Your task to perform on an android device: Open Reddit.com Image 0: 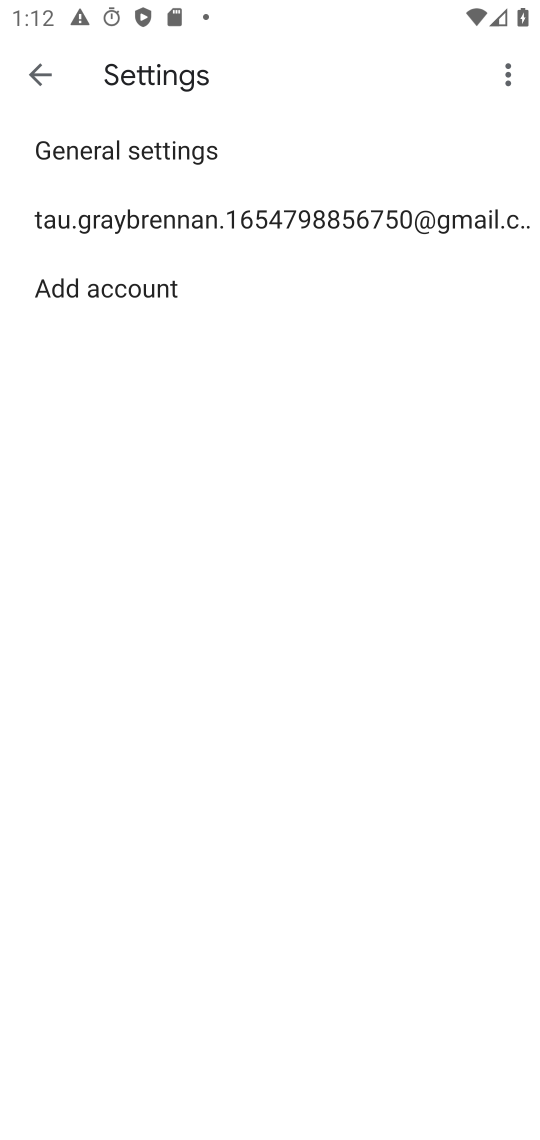
Step 0: press home button
Your task to perform on an android device: Open Reddit.com Image 1: 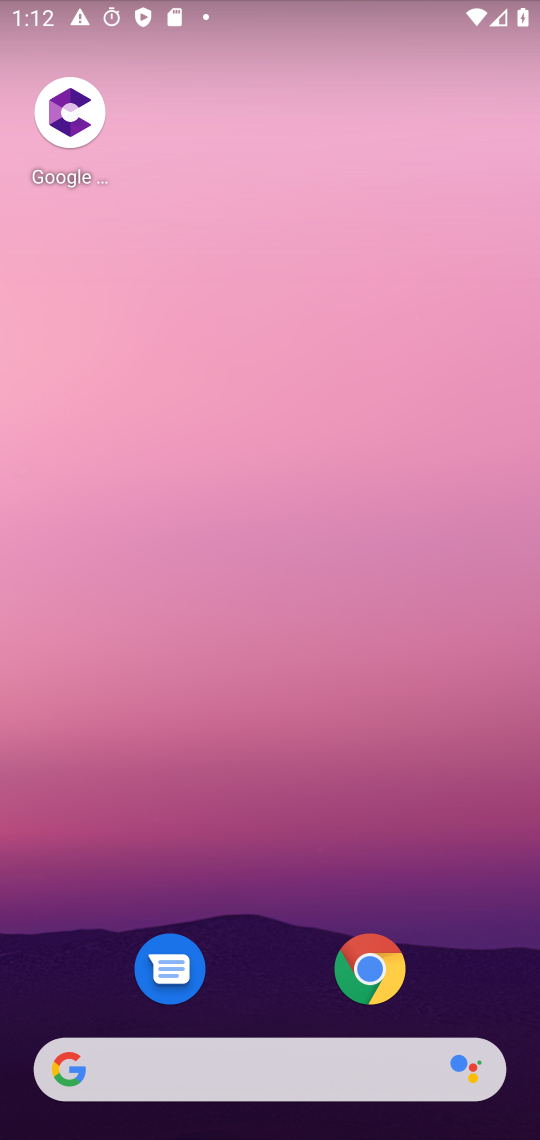
Step 1: click (372, 971)
Your task to perform on an android device: Open Reddit.com Image 2: 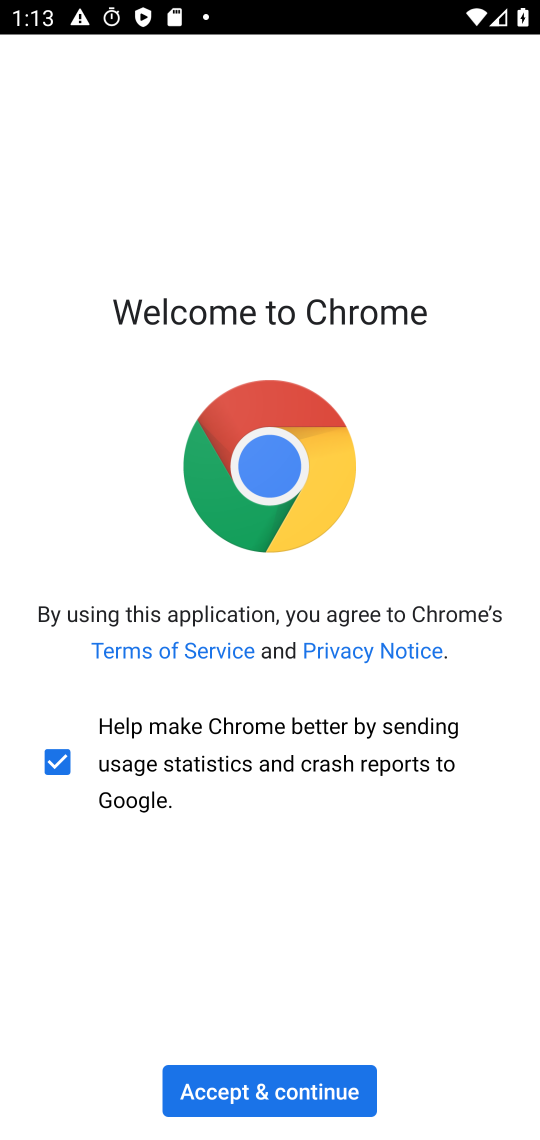
Step 2: click (291, 1090)
Your task to perform on an android device: Open Reddit.com Image 3: 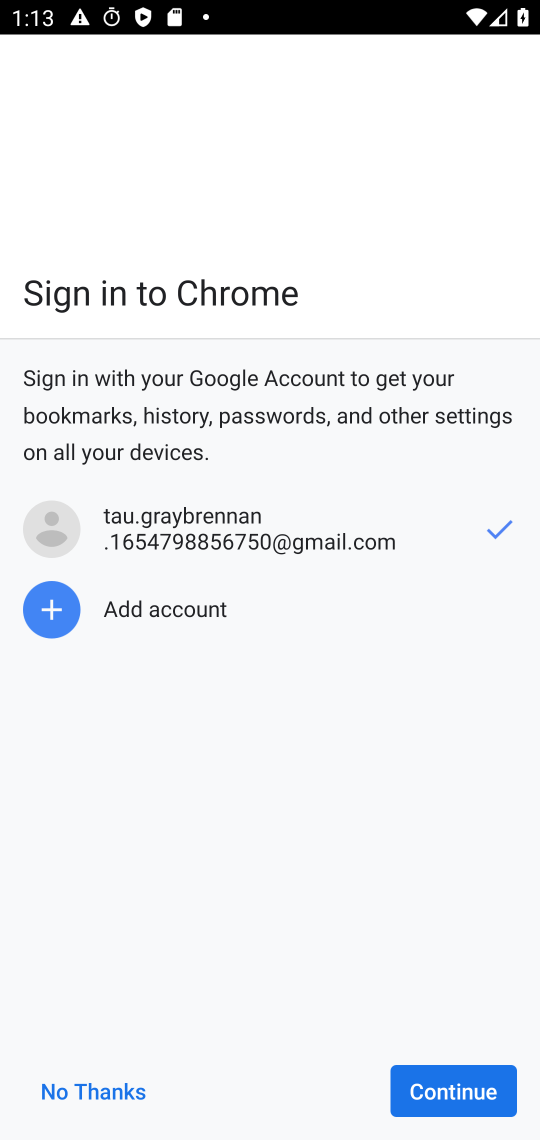
Step 3: click (481, 1093)
Your task to perform on an android device: Open Reddit.com Image 4: 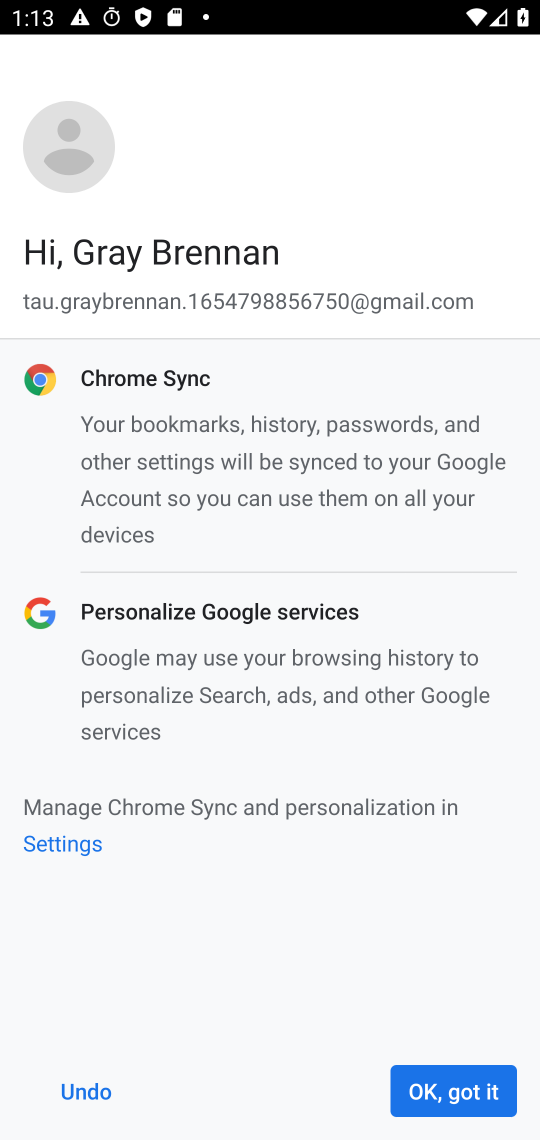
Step 4: click (427, 1090)
Your task to perform on an android device: Open Reddit.com Image 5: 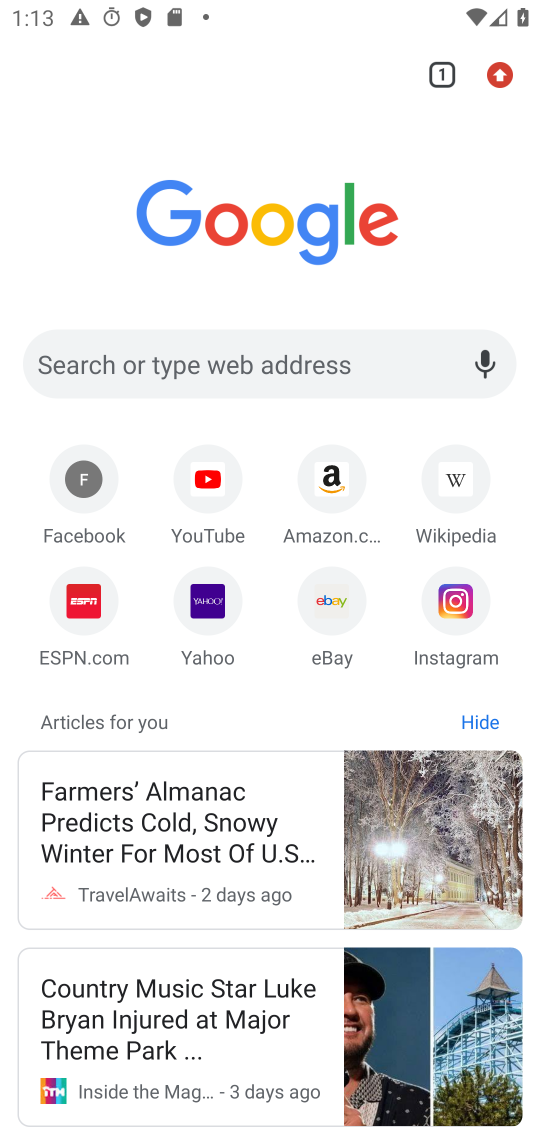
Step 5: click (224, 354)
Your task to perform on an android device: Open Reddit.com Image 6: 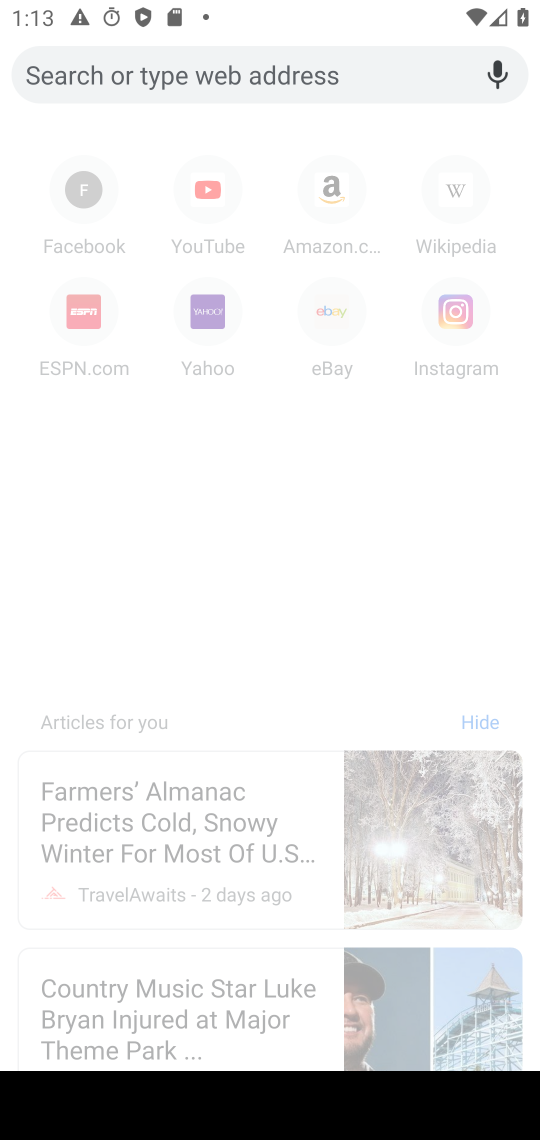
Step 6: drag from (503, 1123) to (379, 720)
Your task to perform on an android device: Open Reddit.com Image 7: 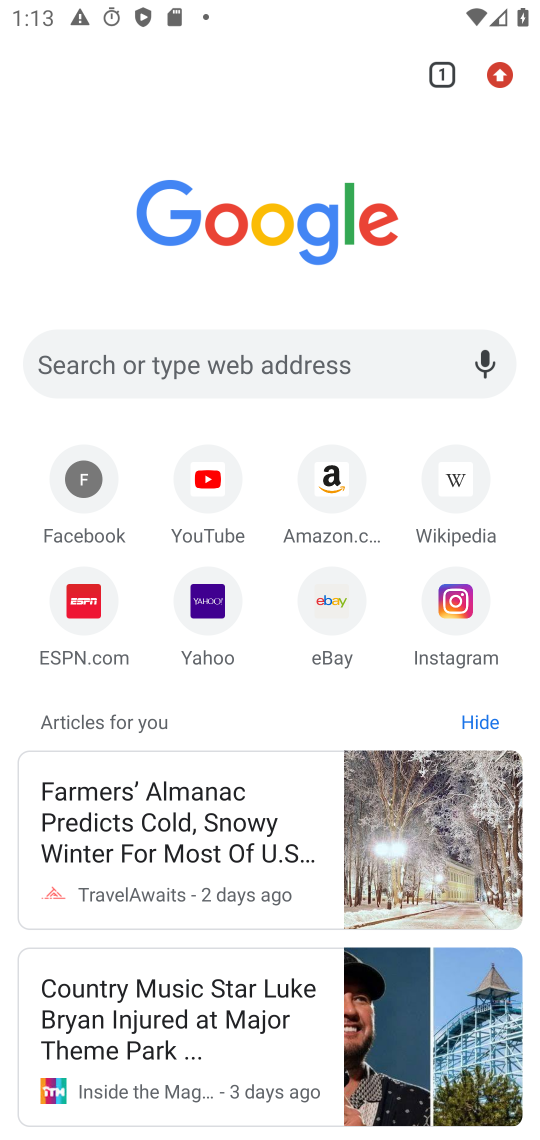
Step 7: click (222, 336)
Your task to perform on an android device: Open Reddit.com Image 8: 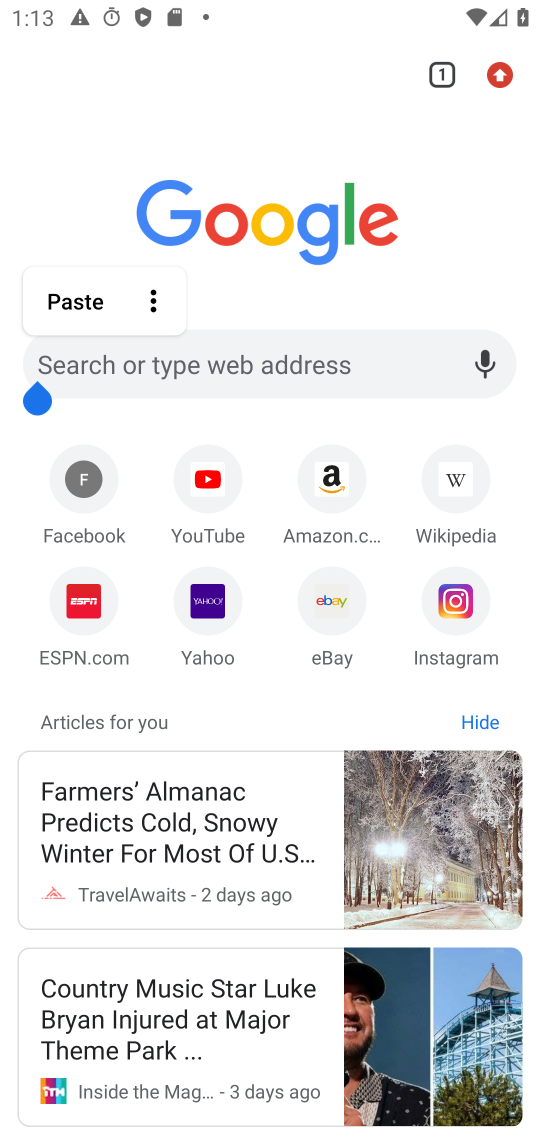
Step 8: click (226, 352)
Your task to perform on an android device: Open Reddit.com Image 9: 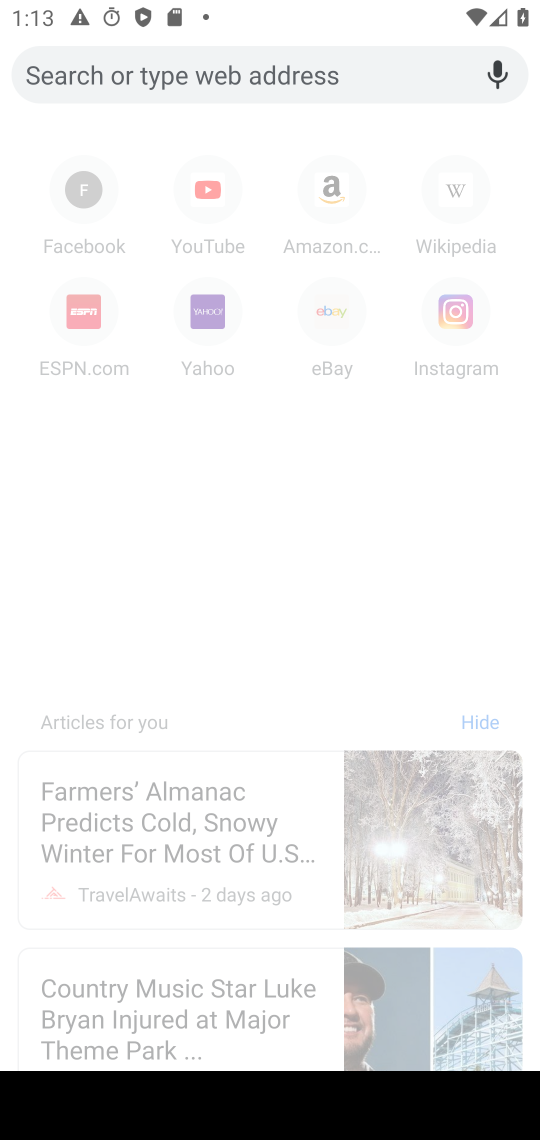
Step 9: click (200, 84)
Your task to perform on an android device: Open Reddit.com Image 10: 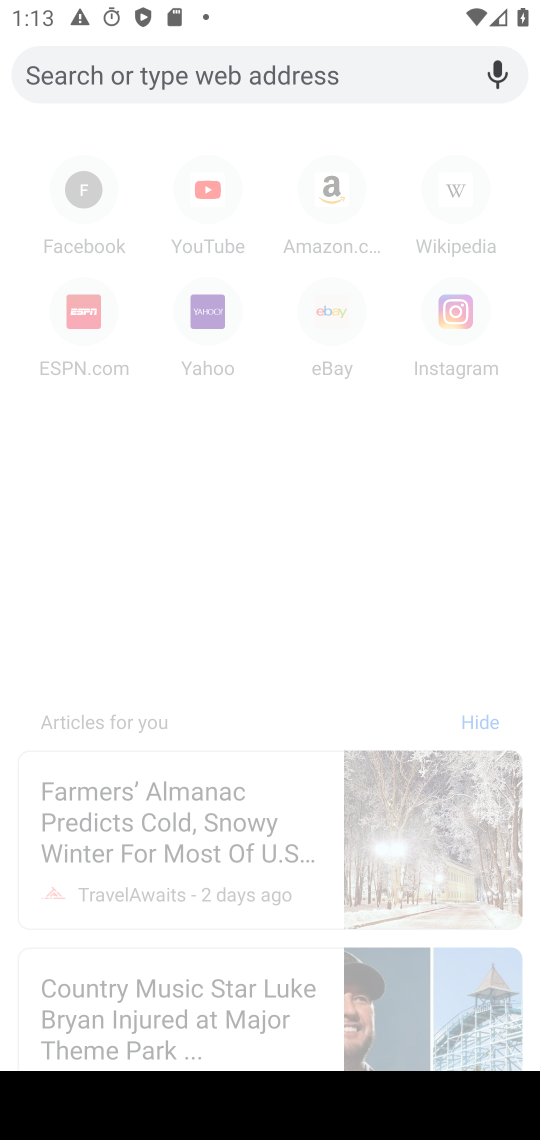
Step 10: click (502, 1119)
Your task to perform on an android device: Open Reddit.com Image 11: 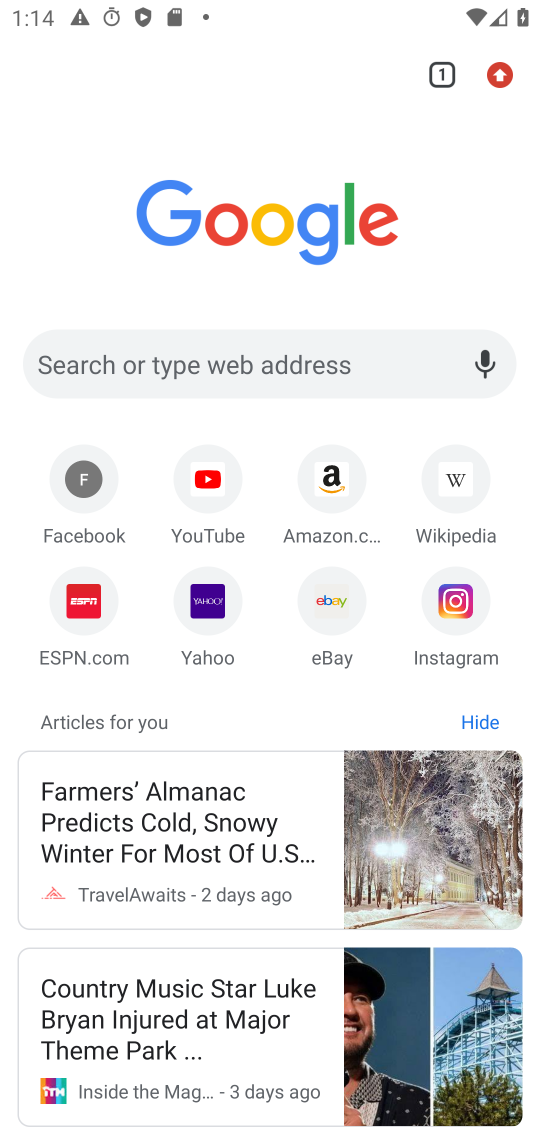
Step 11: click (225, 336)
Your task to perform on an android device: Open Reddit.com Image 12: 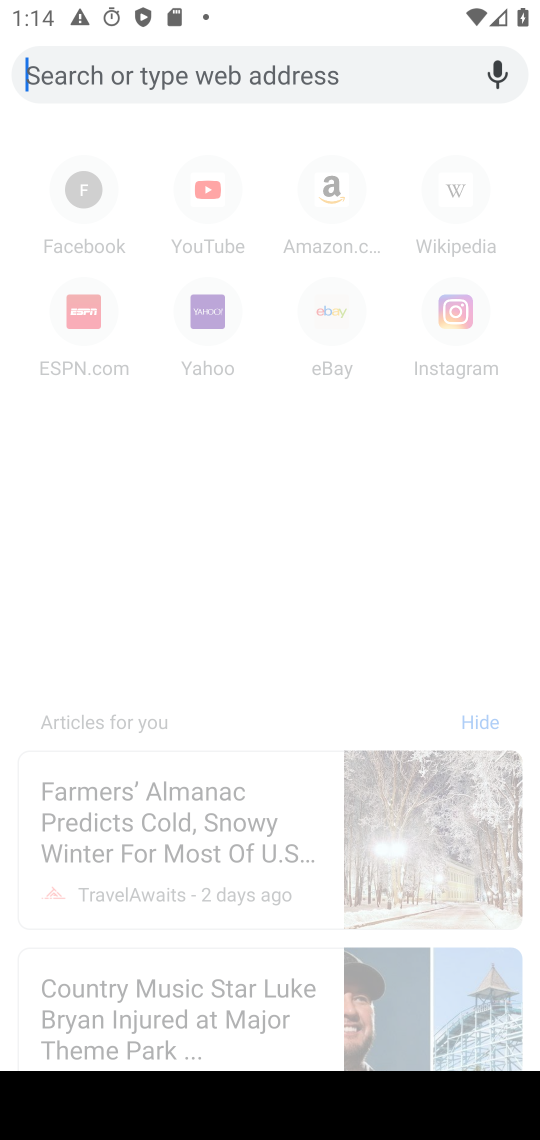
Step 12: drag from (481, 1128) to (464, 1036)
Your task to perform on an android device: Open Reddit.com Image 13: 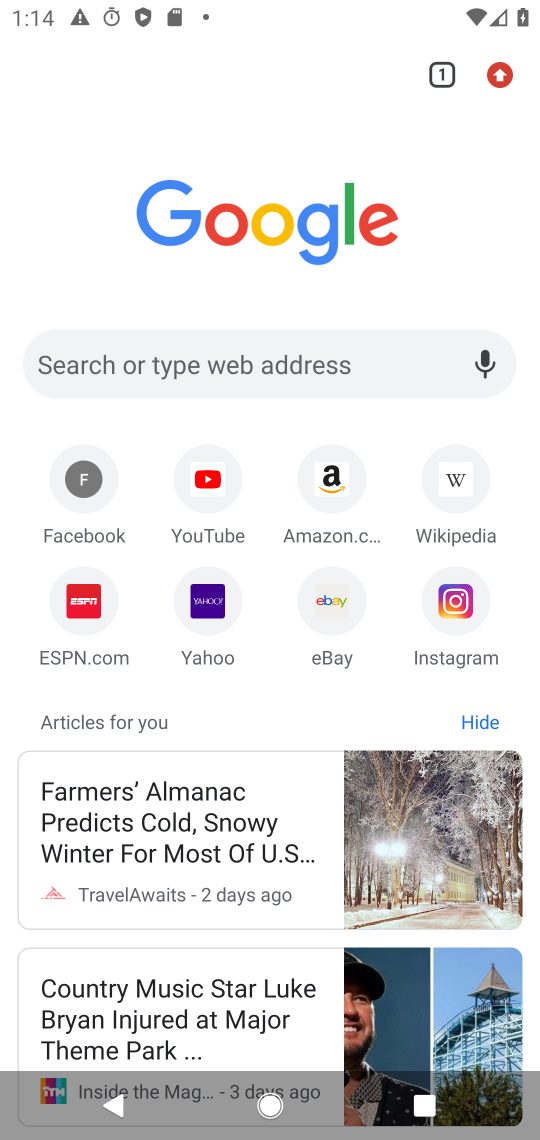
Step 13: click (487, 1127)
Your task to perform on an android device: Open Reddit.com Image 14: 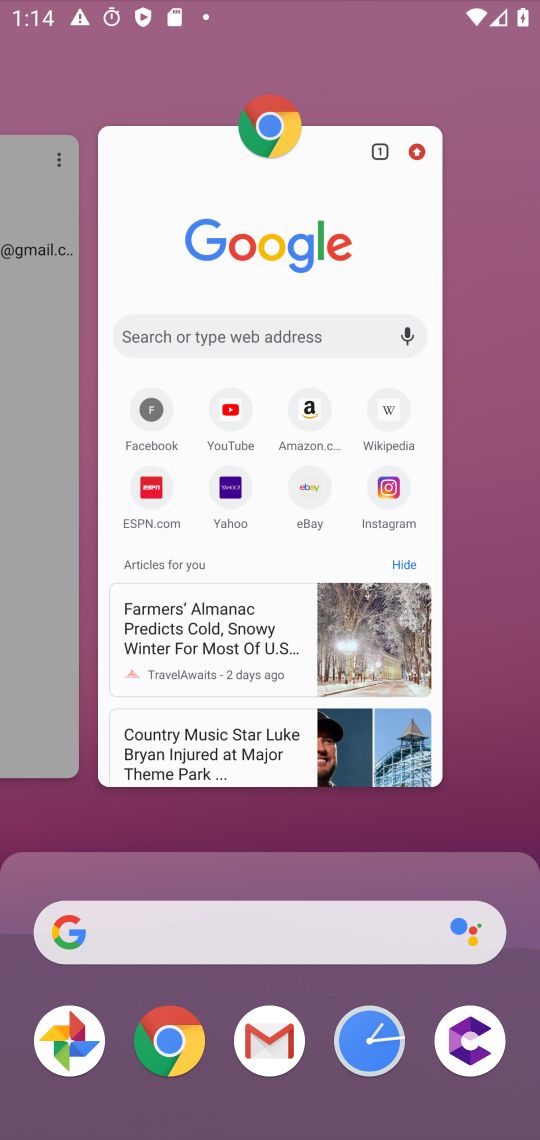
Step 14: click (299, 945)
Your task to perform on an android device: Open Reddit.com Image 15: 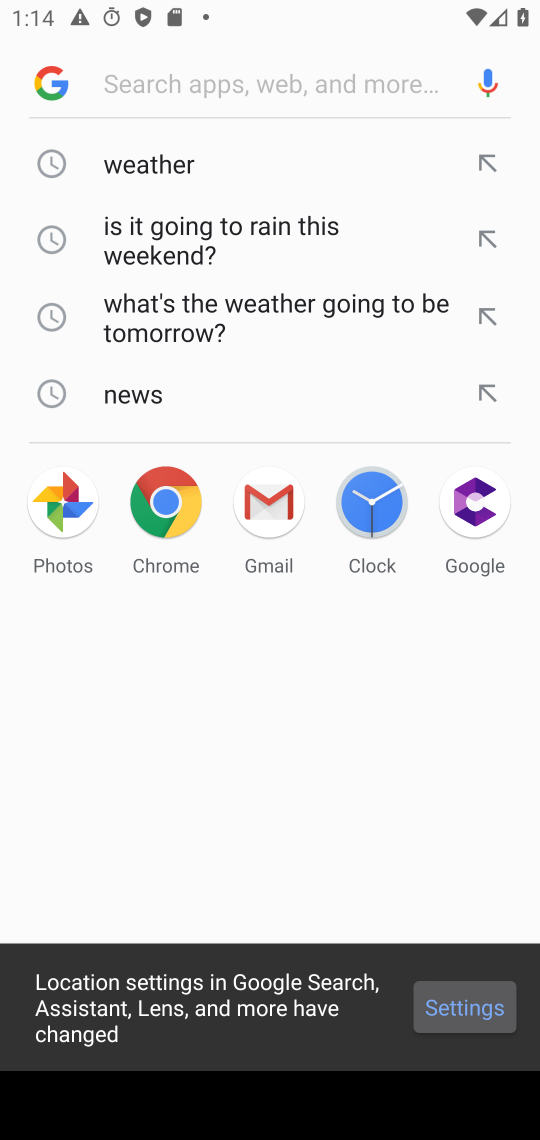
Step 15: drag from (486, 1103) to (487, 968)
Your task to perform on an android device: Open Reddit.com Image 16: 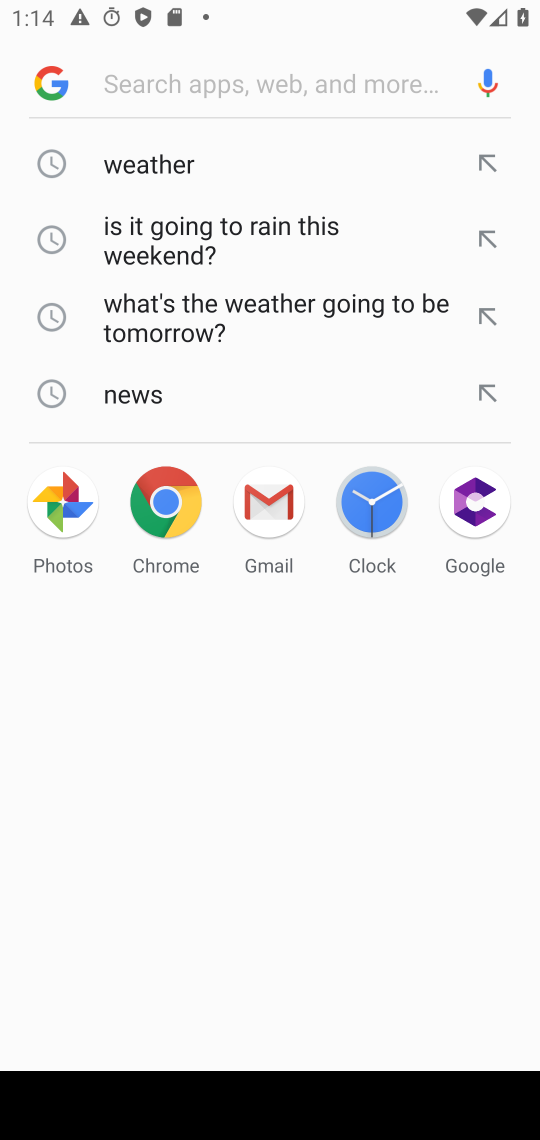
Step 16: drag from (504, 1120) to (471, 1046)
Your task to perform on an android device: Open Reddit.com Image 17: 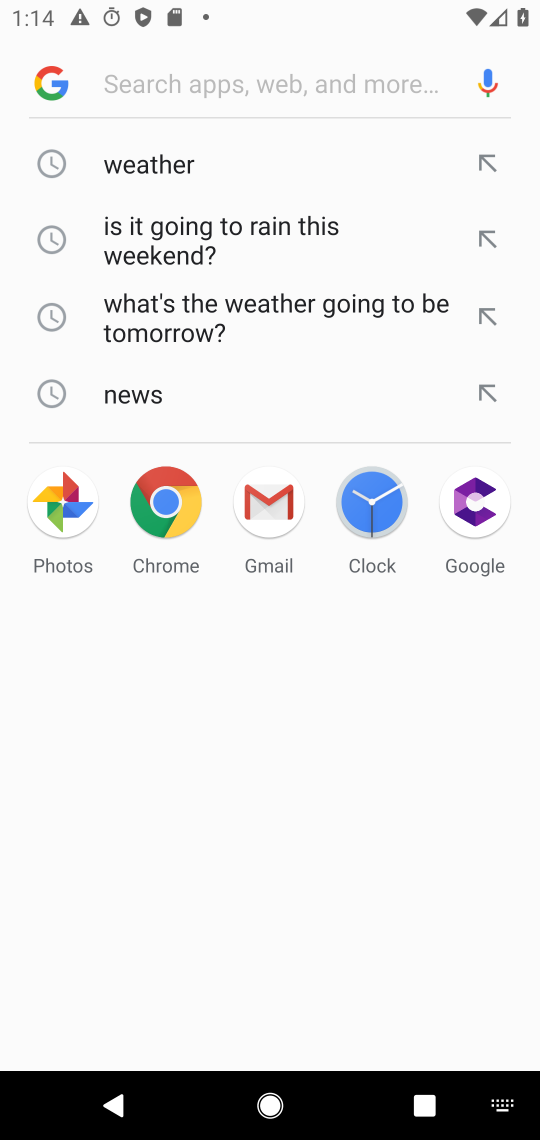
Step 17: click (494, 1117)
Your task to perform on an android device: Open Reddit.com Image 18: 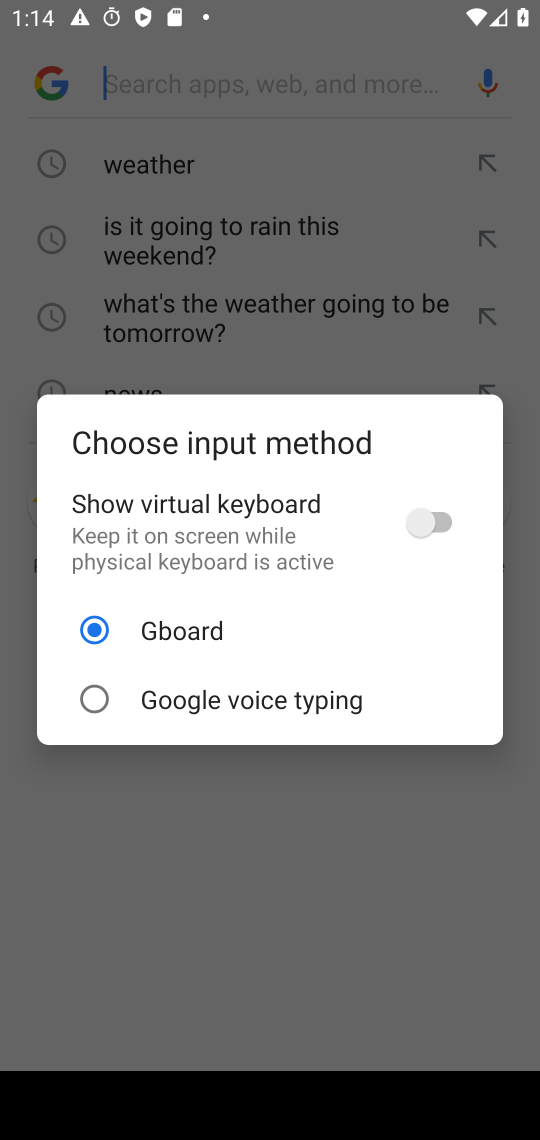
Step 18: click (433, 520)
Your task to perform on an android device: Open Reddit.com Image 19: 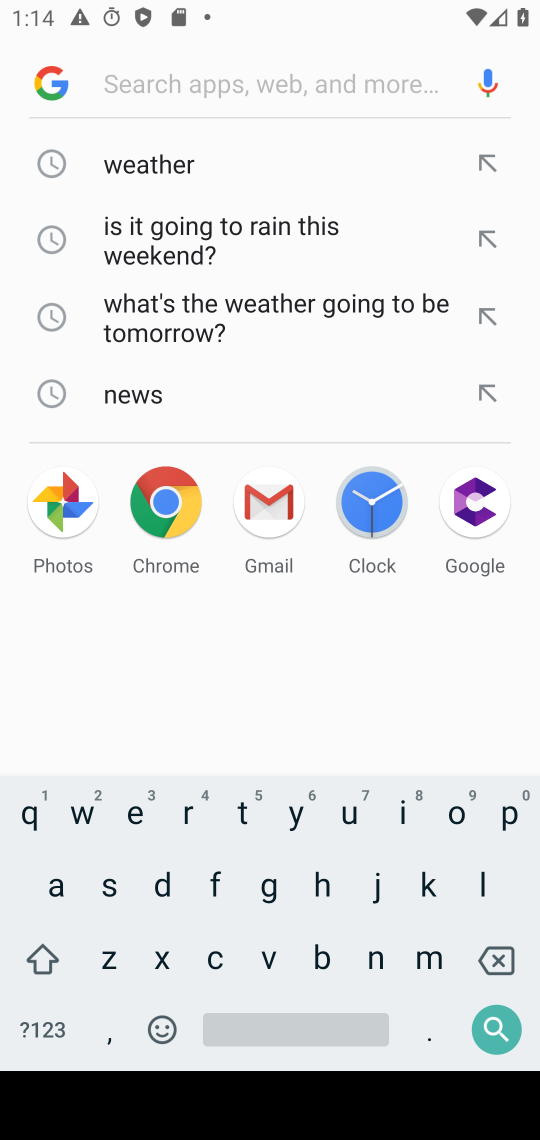
Step 19: click (190, 806)
Your task to perform on an android device: Open Reddit.com Image 20: 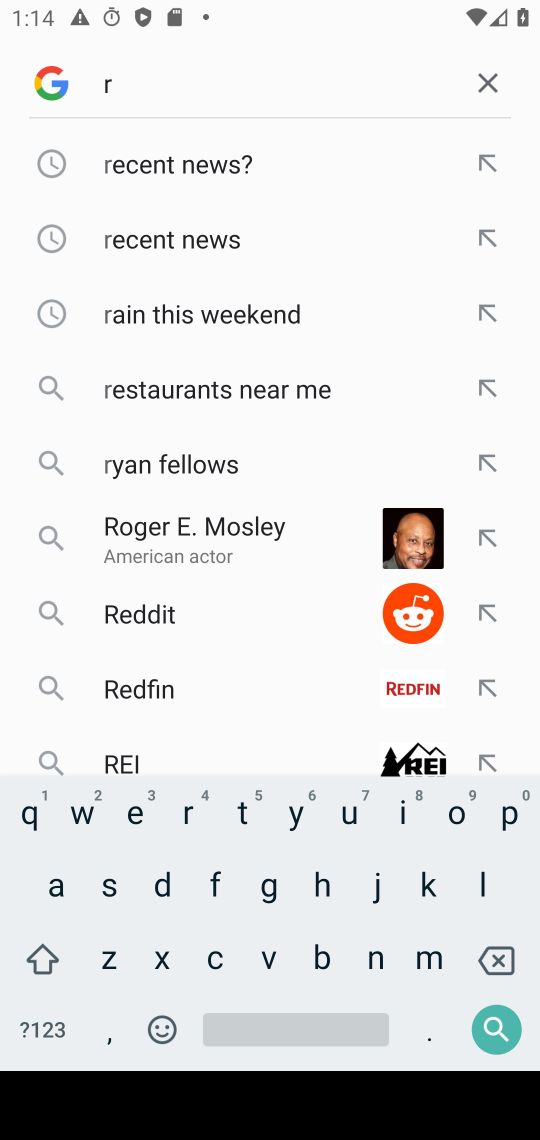
Step 20: click (131, 816)
Your task to perform on an android device: Open Reddit.com Image 21: 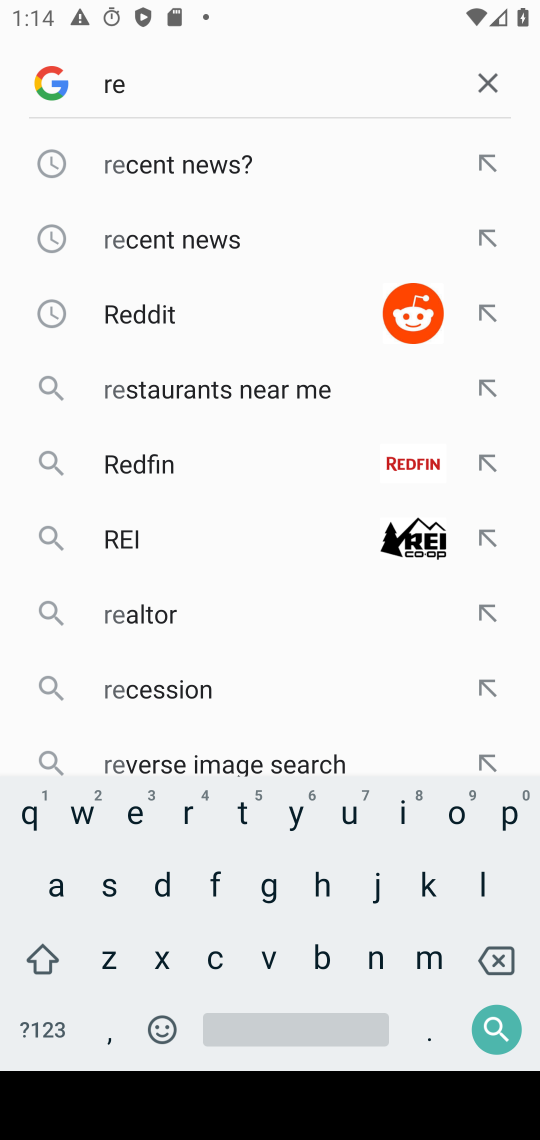
Step 21: click (165, 310)
Your task to perform on an android device: Open Reddit.com Image 22: 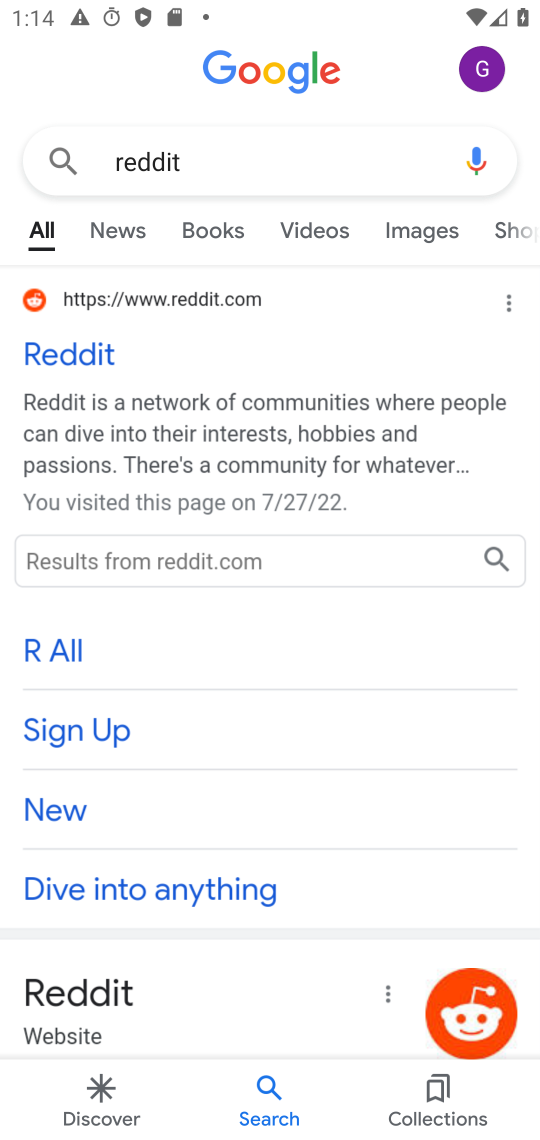
Step 22: click (60, 357)
Your task to perform on an android device: Open Reddit.com Image 23: 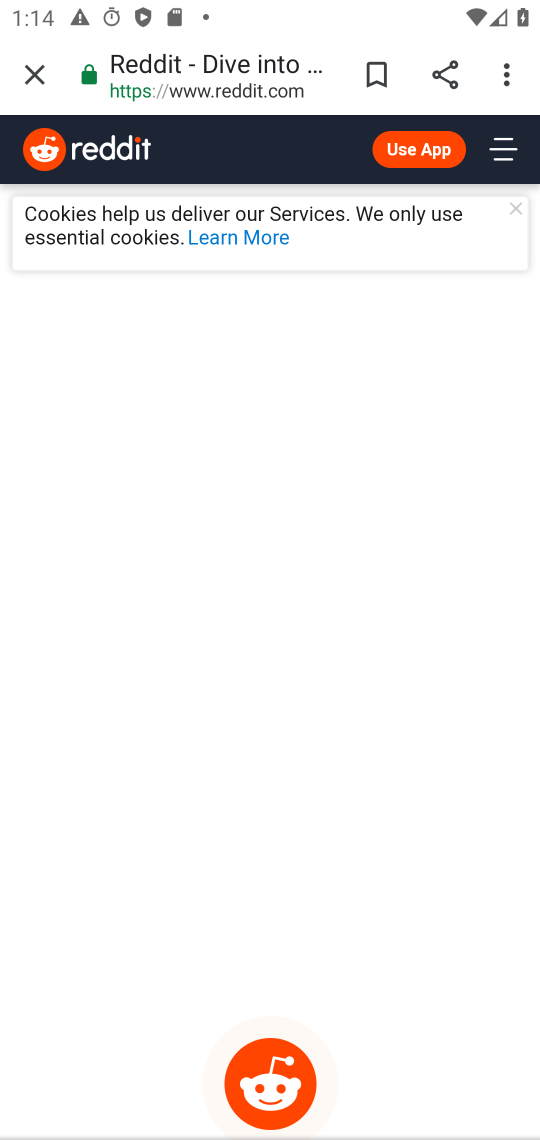
Step 23: task complete